Your task to perform on an android device: Clear the shopping cart on walmart. Search for rayovac triple a on walmart, select the first entry, and add it to the cart. Image 0: 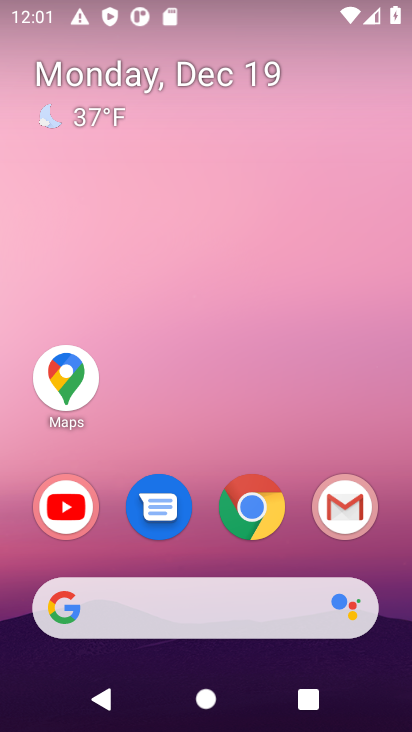
Step 0: click (258, 500)
Your task to perform on an android device: Clear the shopping cart on walmart. Search for rayovac triple a on walmart, select the first entry, and add it to the cart. Image 1: 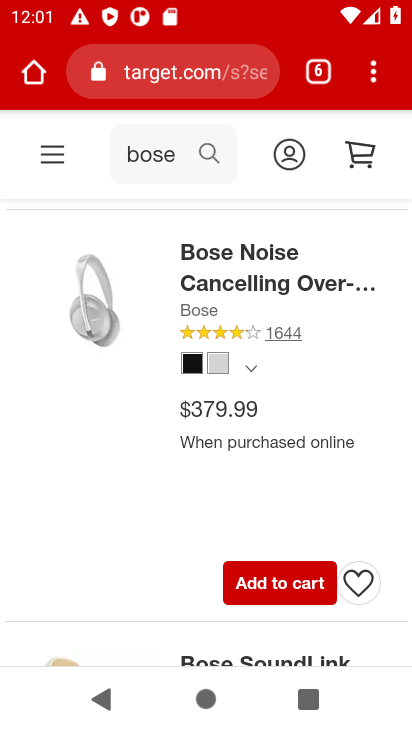
Step 1: click (149, 71)
Your task to perform on an android device: Clear the shopping cart on walmart. Search for rayovac triple a on walmart, select the first entry, and add it to the cart. Image 2: 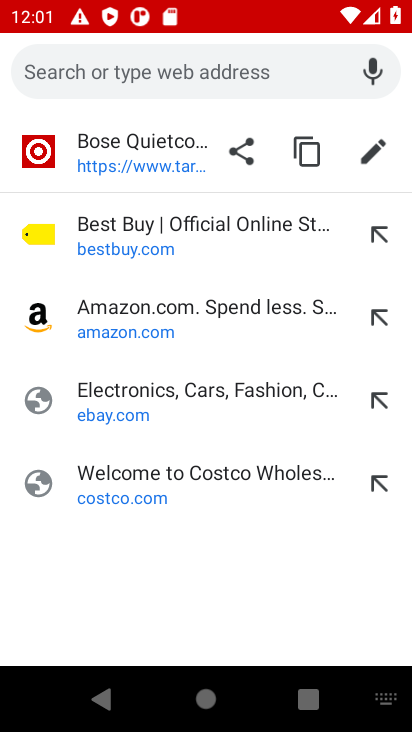
Step 2: type "walmart.com"
Your task to perform on an android device: Clear the shopping cart on walmart. Search for rayovac triple a on walmart, select the first entry, and add it to the cart. Image 3: 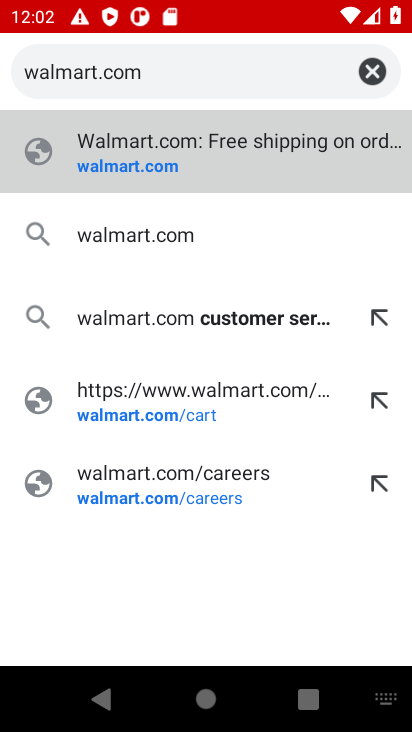
Step 3: click (123, 172)
Your task to perform on an android device: Clear the shopping cart on walmart. Search for rayovac triple a on walmart, select the first entry, and add it to the cart. Image 4: 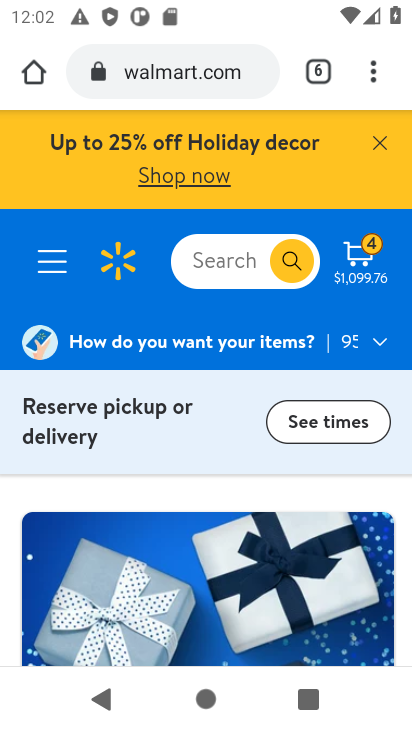
Step 4: click (361, 266)
Your task to perform on an android device: Clear the shopping cart on walmart. Search for rayovac triple a on walmart, select the first entry, and add it to the cart. Image 5: 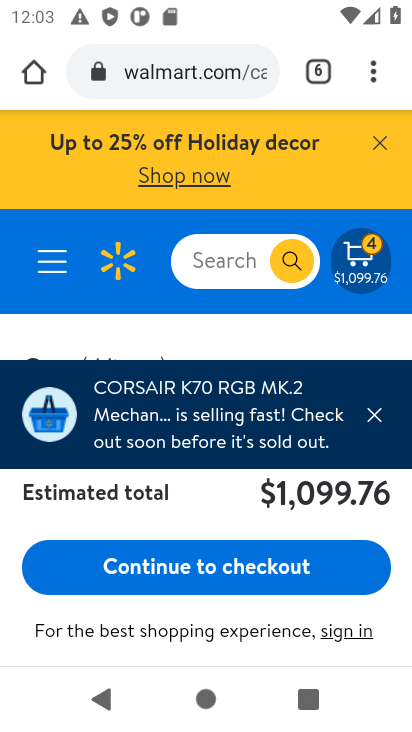
Step 5: drag from (286, 383) to (292, 129)
Your task to perform on an android device: Clear the shopping cart on walmart. Search for rayovac triple a on walmart, select the first entry, and add it to the cart. Image 6: 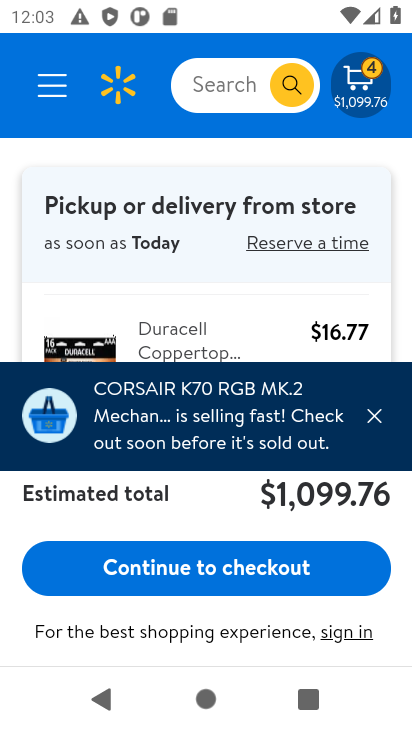
Step 6: click (380, 414)
Your task to perform on an android device: Clear the shopping cart on walmart. Search for rayovac triple a on walmart, select the first entry, and add it to the cart. Image 7: 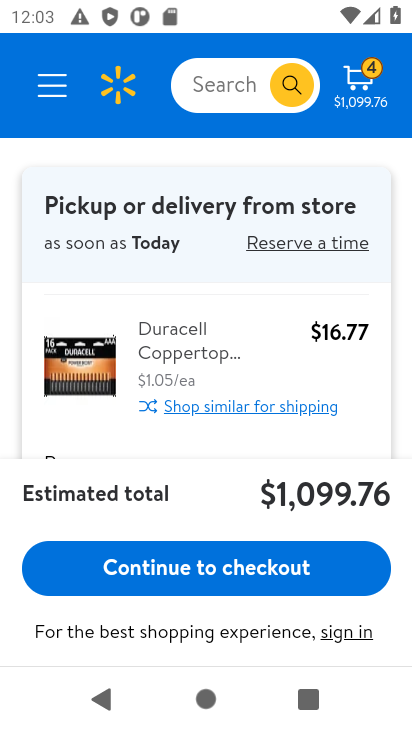
Step 7: drag from (233, 445) to (234, 199)
Your task to perform on an android device: Clear the shopping cart on walmart. Search for rayovac triple a on walmart, select the first entry, and add it to the cart. Image 8: 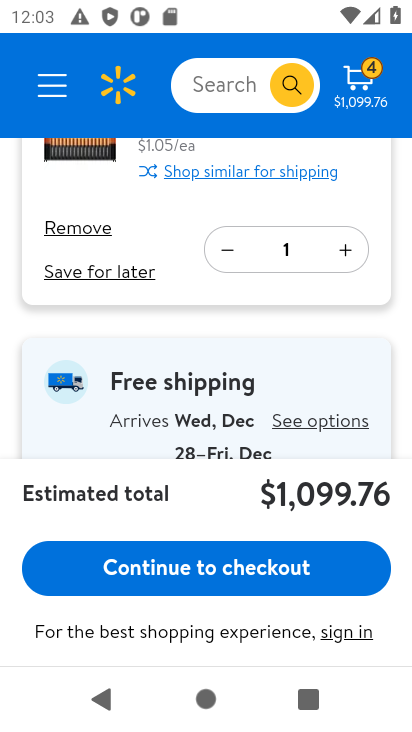
Step 8: click (62, 232)
Your task to perform on an android device: Clear the shopping cart on walmart. Search for rayovac triple a on walmart, select the first entry, and add it to the cart. Image 9: 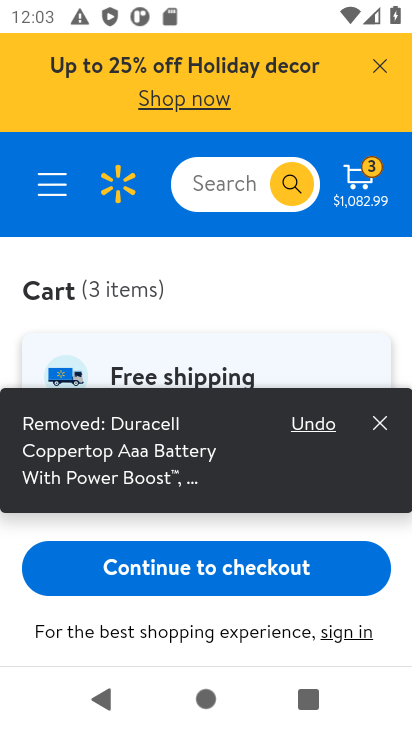
Step 9: click (377, 422)
Your task to perform on an android device: Clear the shopping cart on walmart. Search for rayovac triple a on walmart, select the first entry, and add it to the cart. Image 10: 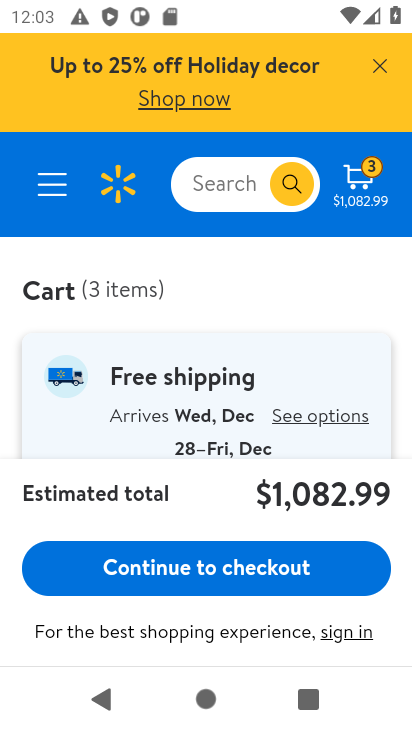
Step 10: drag from (146, 429) to (117, 147)
Your task to perform on an android device: Clear the shopping cart on walmart. Search for rayovac triple a on walmart, select the first entry, and add it to the cart. Image 11: 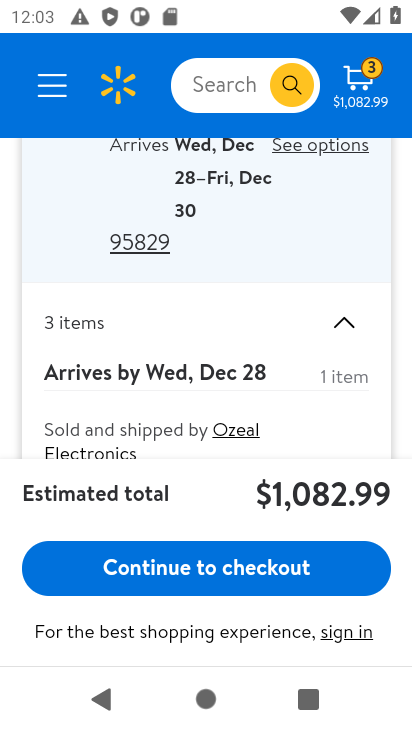
Step 11: drag from (82, 366) to (85, 164)
Your task to perform on an android device: Clear the shopping cart on walmart. Search for rayovac triple a on walmart, select the first entry, and add it to the cart. Image 12: 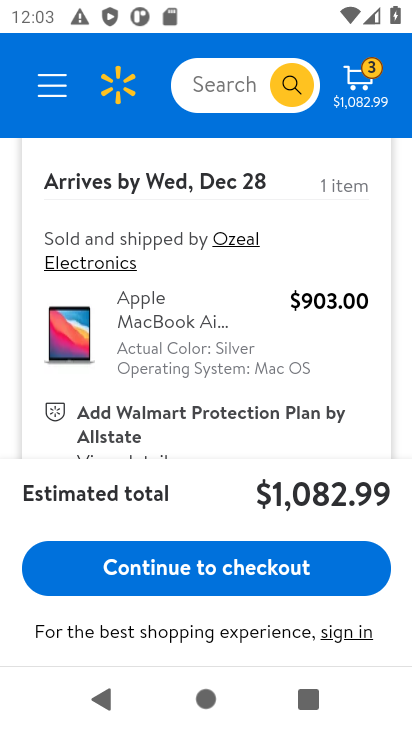
Step 12: drag from (84, 392) to (82, 196)
Your task to perform on an android device: Clear the shopping cart on walmart. Search for rayovac triple a on walmart, select the first entry, and add it to the cart. Image 13: 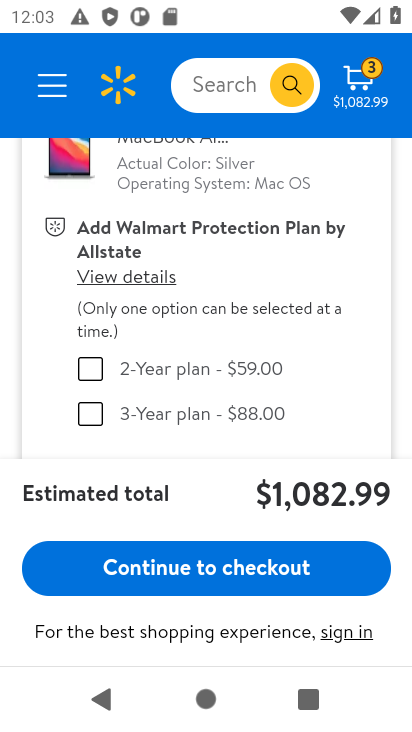
Step 13: drag from (113, 408) to (122, 217)
Your task to perform on an android device: Clear the shopping cart on walmart. Search for rayovac triple a on walmart, select the first entry, and add it to the cart. Image 14: 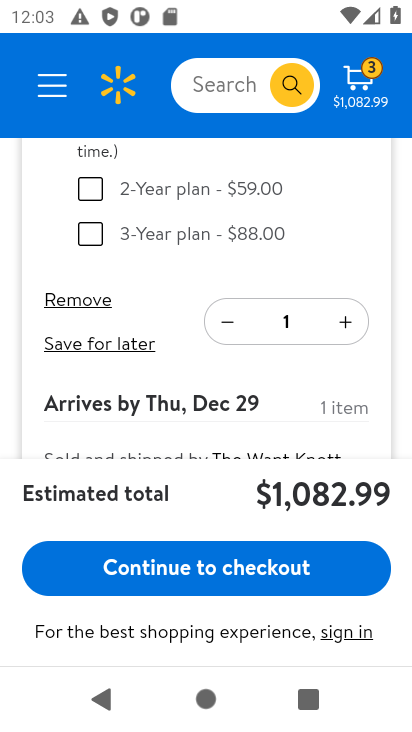
Step 14: click (78, 300)
Your task to perform on an android device: Clear the shopping cart on walmart. Search for rayovac triple a on walmart, select the first entry, and add it to the cart. Image 15: 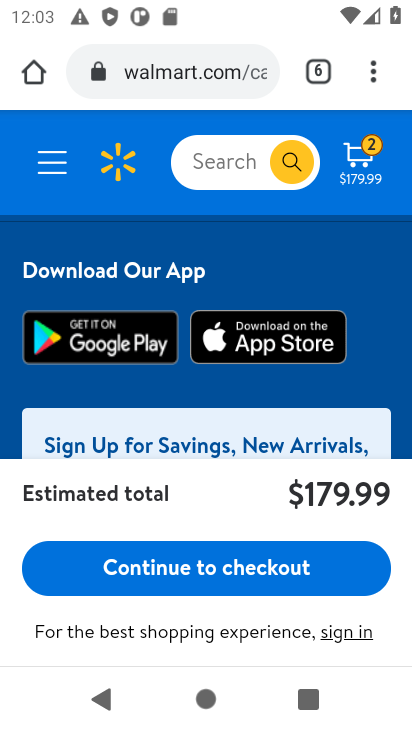
Step 15: drag from (248, 203) to (245, 123)
Your task to perform on an android device: Clear the shopping cart on walmart. Search for rayovac triple a on walmart, select the first entry, and add it to the cart. Image 16: 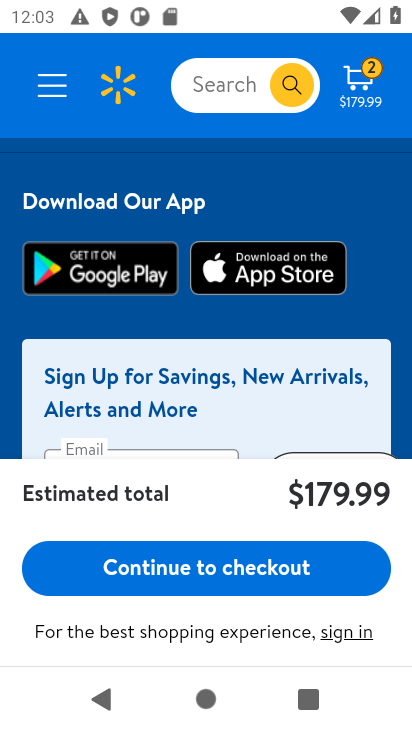
Step 16: drag from (263, 391) to (240, 166)
Your task to perform on an android device: Clear the shopping cart on walmart. Search for rayovac triple a on walmart, select the first entry, and add it to the cart. Image 17: 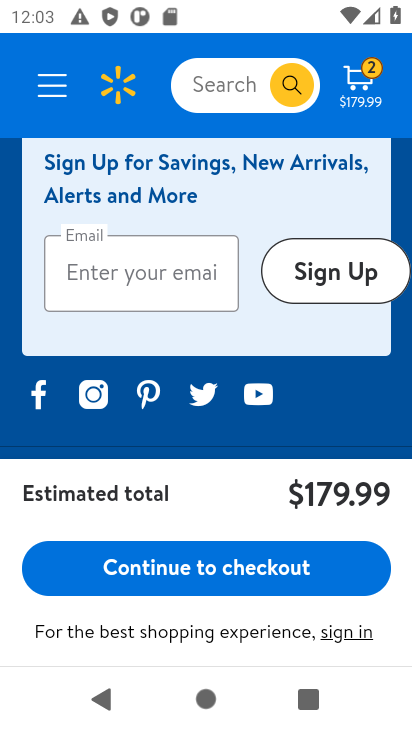
Step 17: drag from (213, 318) to (181, 611)
Your task to perform on an android device: Clear the shopping cart on walmart. Search for rayovac triple a on walmart, select the first entry, and add it to the cart. Image 18: 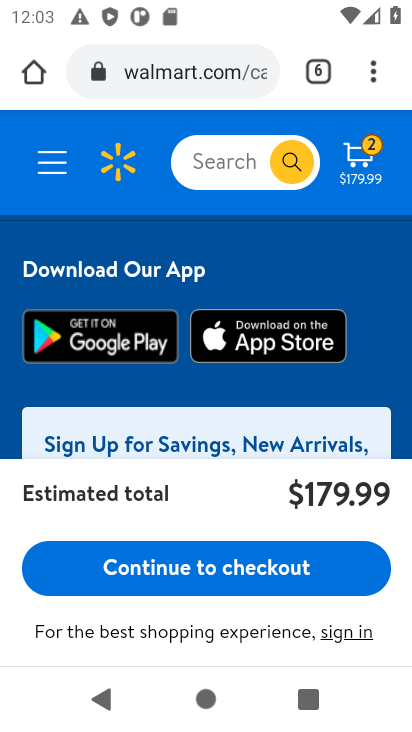
Step 18: drag from (248, 330) to (234, 566)
Your task to perform on an android device: Clear the shopping cart on walmart. Search for rayovac triple a on walmart, select the first entry, and add it to the cart. Image 19: 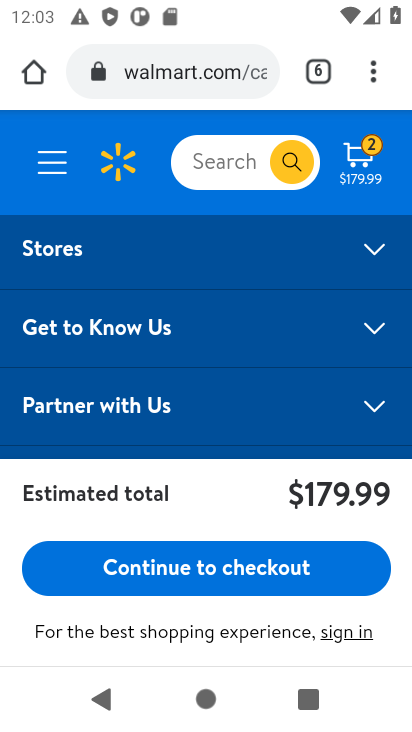
Step 19: drag from (183, 338) to (185, 549)
Your task to perform on an android device: Clear the shopping cart on walmart. Search for rayovac triple a on walmart, select the first entry, and add it to the cart. Image 20: 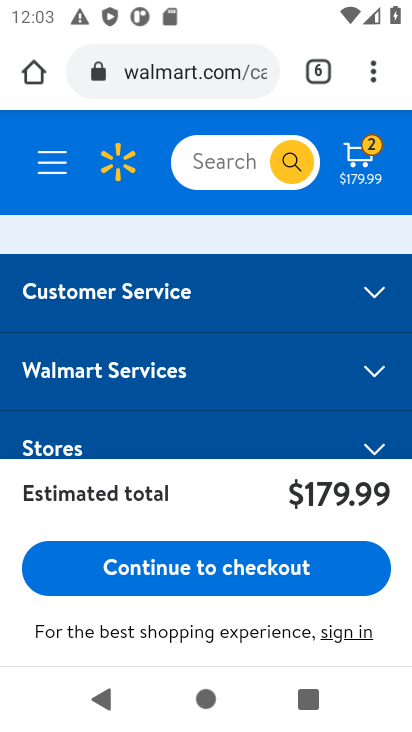
Step 20: drag from (187, 239) to (146, 591)
Your task to perform on an android device: Clear the shopping cart on walmart. Search for rayovac triple a on walmart, select the first entry, and add it to the cart. Image 21: 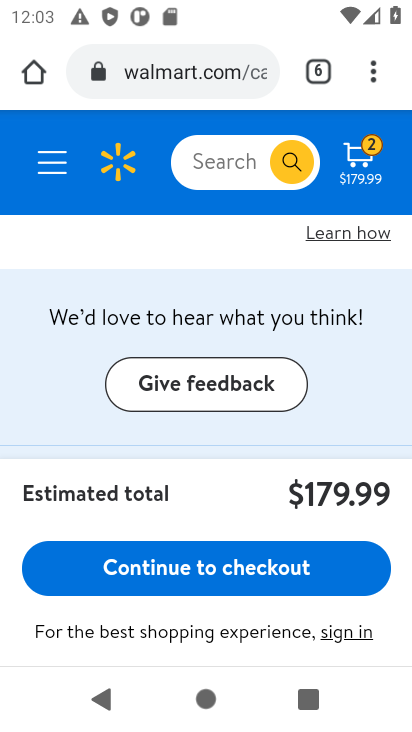
Step 21: drag from (156, 308) to (128, 558)
Your task to perform on an android device: Clear the shopping cart on walmart. Search for rayovac triple a on walmart, select the first entry, and add it to the cart. Image 22: 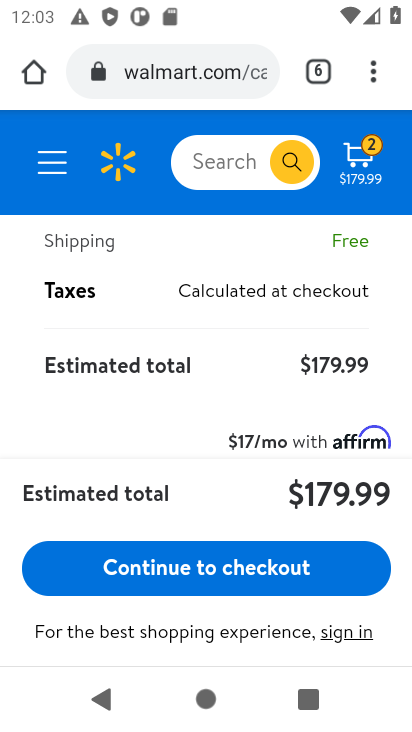
Step 22: drag from (128, 368) to (128, 251)
Your task to perform on an android device: Clear the shopping cart on walmart. Search for rayovac triple a on walmart, select the first entry, and add it to the cart. Image 23: 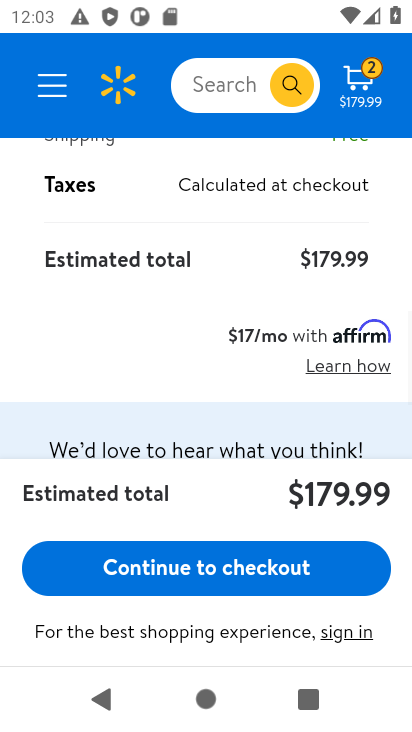
Step 23: drag from (124, 265) to (102, 641)
Your task to perform on an android device: Clear the shopping cart on walmart. Search for rayovac triple a on walmart, select the first entry, and add it to the cart. Image 24: 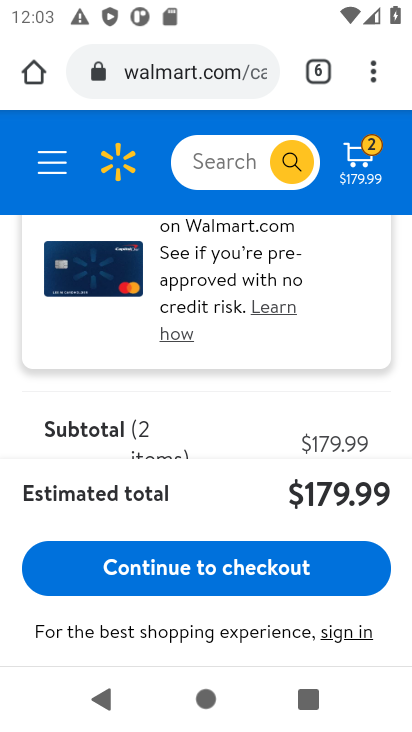
Step 24: drag from (138, 390) to (114, 668)
Your task to perform on an android device: Clear the shopping cart on walmart. Search for rayovac triple a on walmart, select the first entry, and add it to the cart. Image 25: 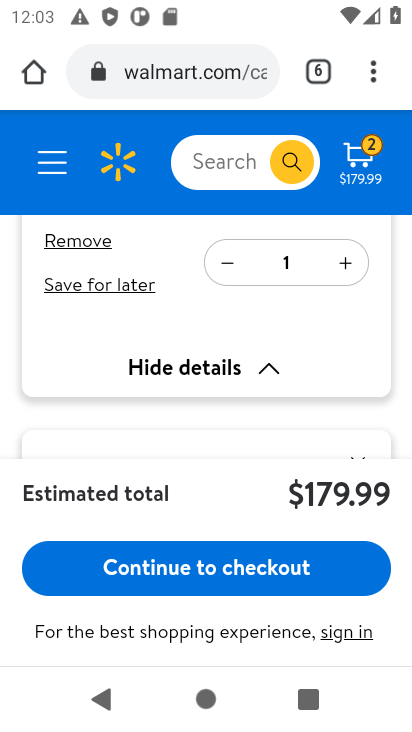
Step 25: click (73, 237)
Your task to perform on an android device: Clear the shopping cart on walmart. Search for rayovac triple a on walmart, select the first entry, and add it to the cart. Image 26: 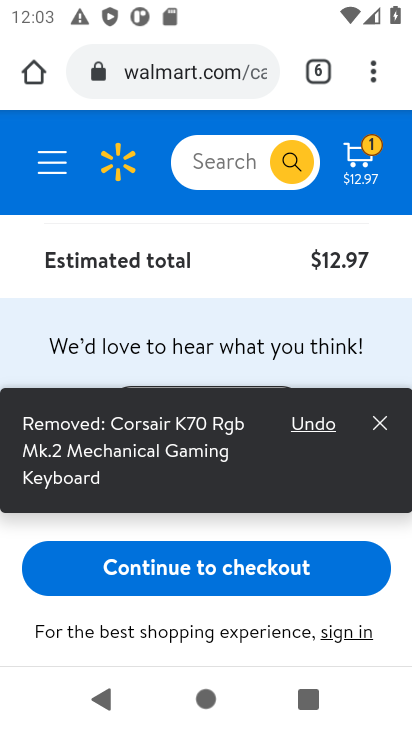
Step 26: drag from (174, 272) to (128, 699)
Your task to perform on an android device: Clear the shopping cart on walmart. Search for rayovac triple a on walmart, select the first entry, and add it to the cart. Image 27: 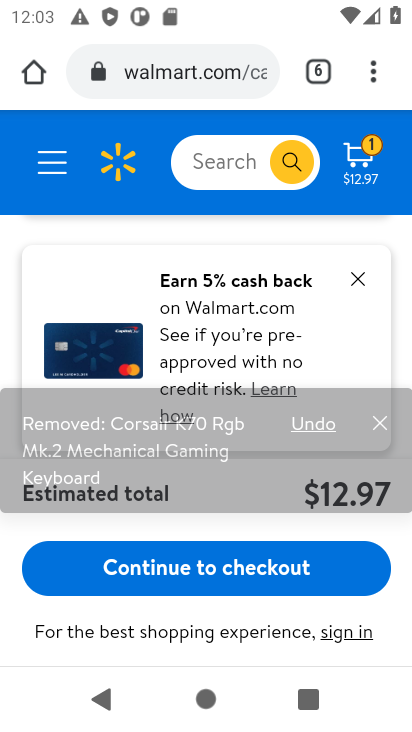
Step 27: drag from (50, 276) to (10, 597)
Your task to perform on an android device: Clear the shopping cart on walmart. Search for rayovac triple a on walmart, select the first entry, and add it to the cart. Image 28: 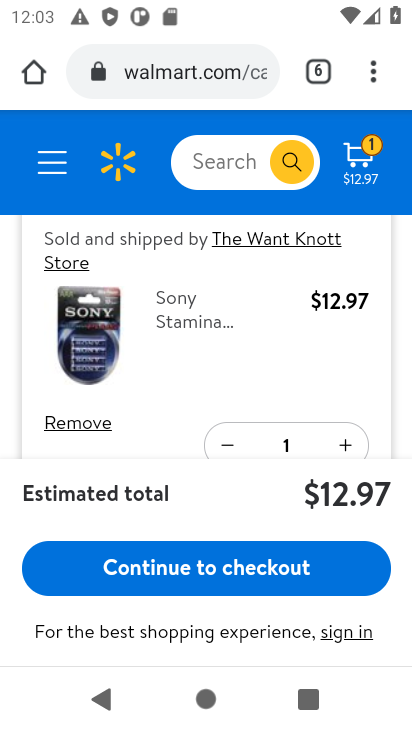
Step 28: click (69, 423)
Your task to perform on an android device: Clear the shopping cart on walmart. Search for rayovac triple a on walmart, select the first entry, and add it to the cart. Image 29: 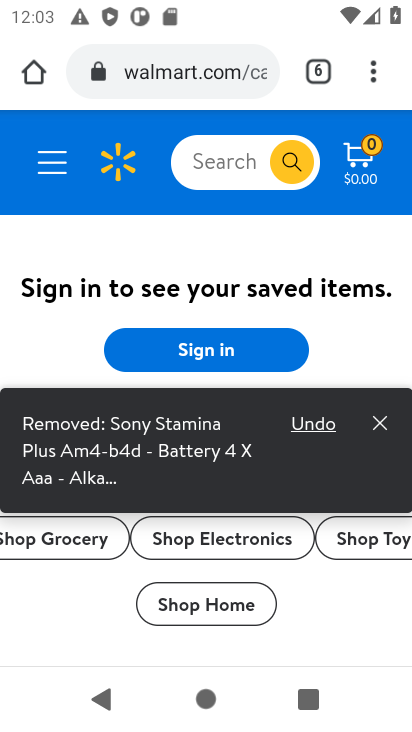
Step 29: drag from (90, 292) to (32, 555)
Your task to perform on an android device: Clear the shopping cart on walmart. Search for rayovac triple a on walmart, select the first entry, and add it to the cart. Image 30: 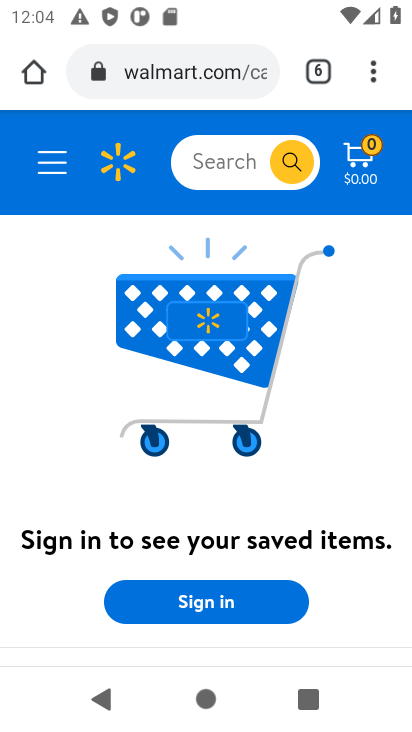
Step 30: drag from (111, 423) to (81, 528)
Your task to perform on an android device: Clear the shopping cart on walmart. Search for rayovac triple a on walmart, select the first entry, and add it to the cart. Image 31: 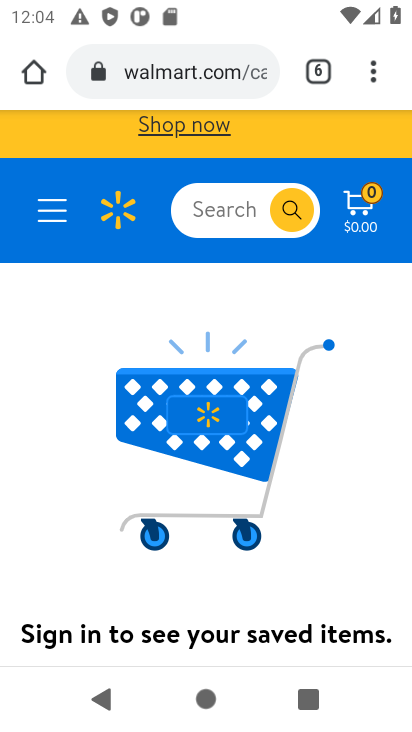
Step 31: click (222, 212)
Your task to perform on an android device: Clear the shopping cart on walmart. Search for rayovac triple a on walmart, select the first entry, and add it to the cart. Image 32: 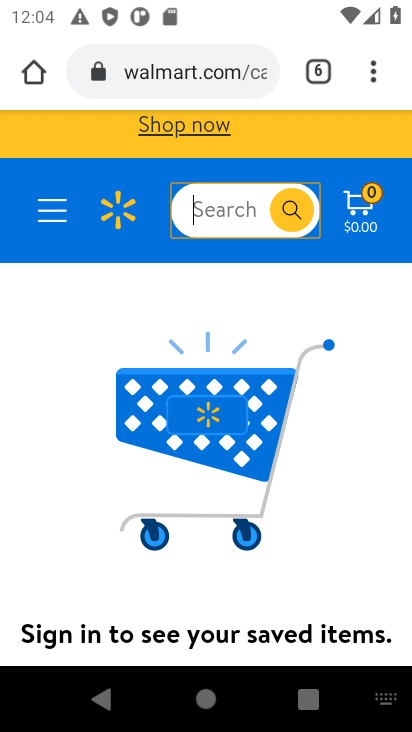
Step 32: type "rayovac triple a"
Your task to perform on an android device: Clear the shopping cart on walmart. Search for rayovac triple a on walmart, select the first entry, and add it to the cart. Image 33: 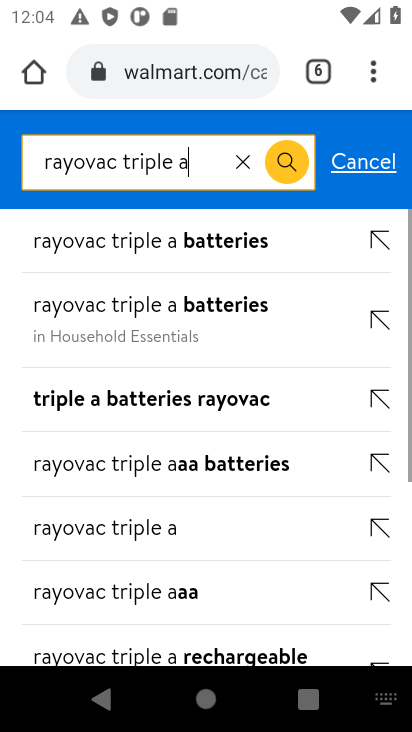
Step 33: click (109, 248)
Your task to perform on an android device: Clear the shopping cart on walmart. Search for rayovac triple a on walmart, select the first entry, and add it to the cart. Image 34: 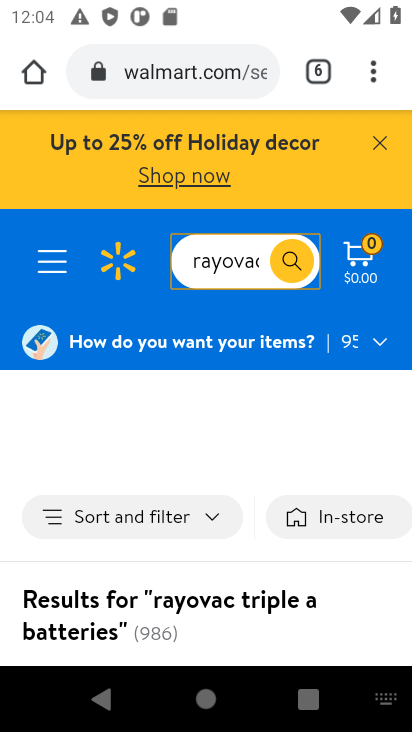
Step 34: drag from (181, 480) to (171, 171)
Your task to perform on an android device: Clear the shopping cart on walmart. Search for rayovac triple a on walmart, select the first entry, and add it to the cart. Image 35: 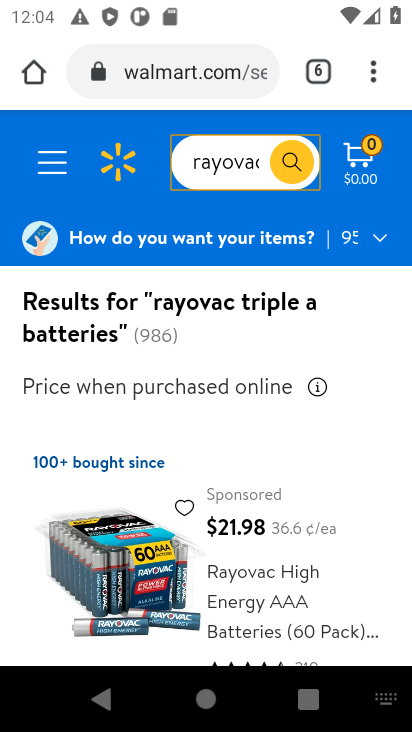
Step 35: drag from (185, 437) to (180, 263)
Your task to perform on an android device: Clear the shopping cart on walmart. Search for rayovac triple a on walmart, select the first entry, and add it to the cart. Image 36: 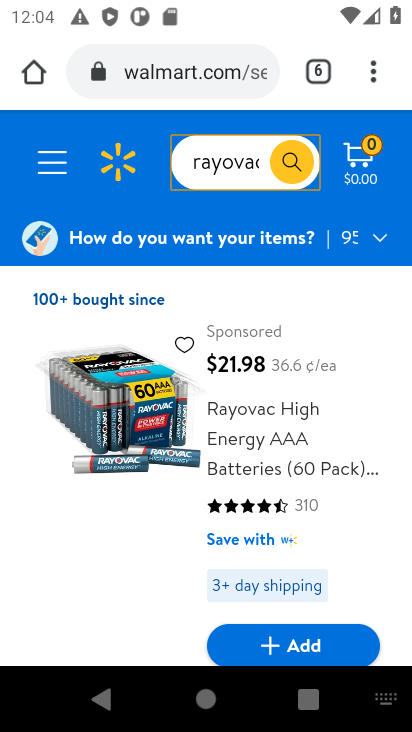
Step 36: drag from (183, 439) to (180, 326)
Your task to perform on an android device: Clear the shopping cart on walmart. Search for rayovac triple a on walmart, select the first entry, and add it to the cart. Image 37: 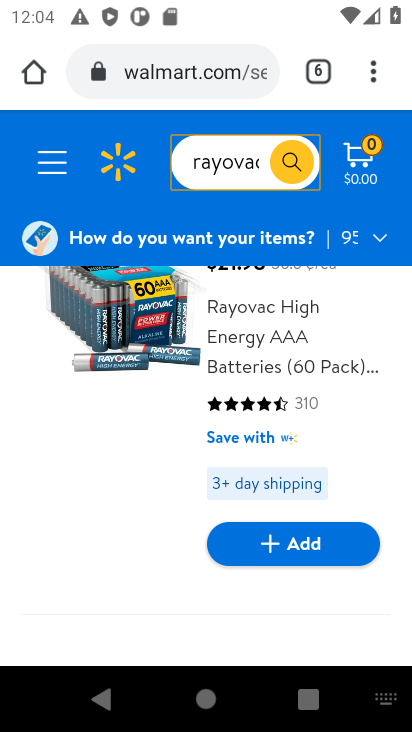
Step 37: click (283, 549)
Your task to perform on an android device: Clear the shopping cart on walmart. Search for rayovac triple a on walmart, select the first entry, and add it to the cart. Image 38: 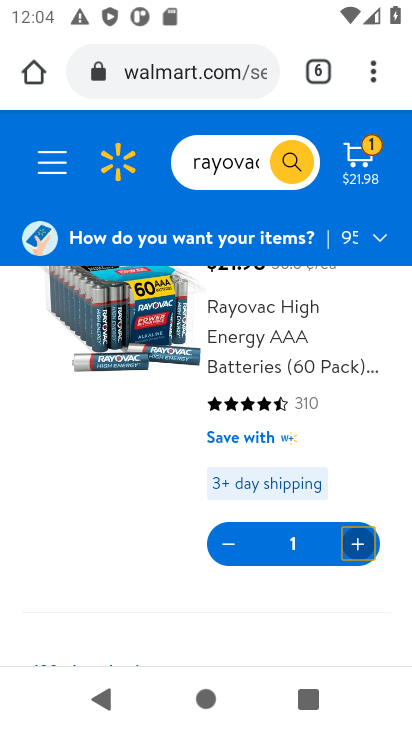
Step 38: task complete